Your task to perform on an android device: Is it going to rain tomorrow? Image 0: 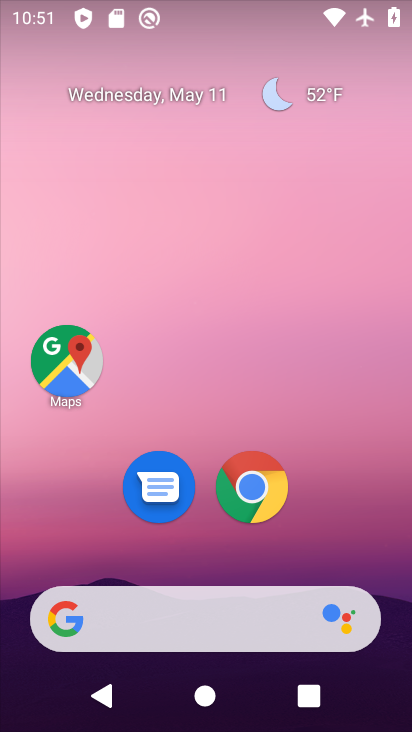
Step 0: drag from (351, 506) to (241, 13)
Your task to perform on an android device: Is it going to rain tomorrow? Image 1: 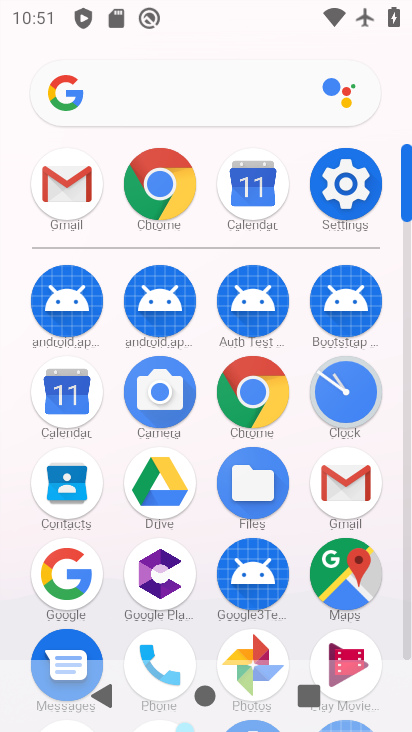
Step 1: drag from (9, 533) to (9, 213)
Your task to perform on an android device: Is it going to rain tomorrow? Image 2: 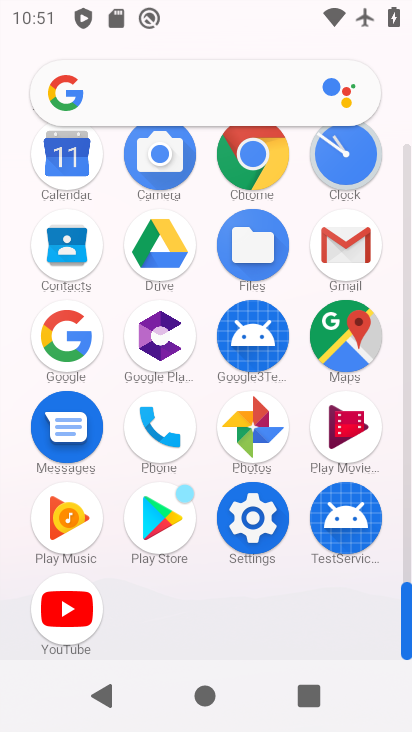
Step 2: drag from (7, 491) to (11, 343)
Your task to perform on an android device: Is it going to rain tomorrow? Image 3: 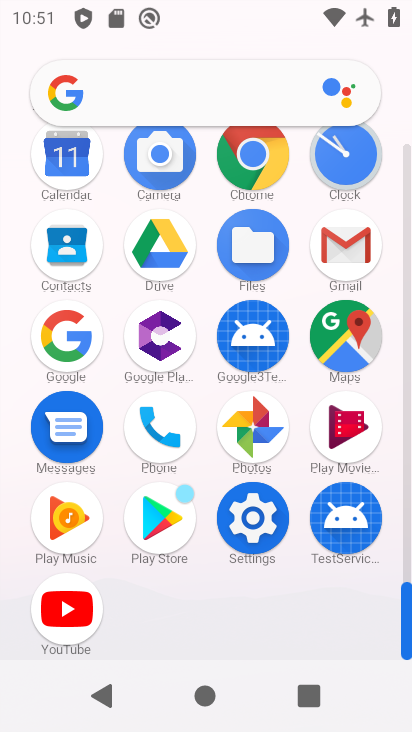
Step 3: click (244, 139)
Your task to perform on an android device: Is it going to rain tomorrow? Image 4: 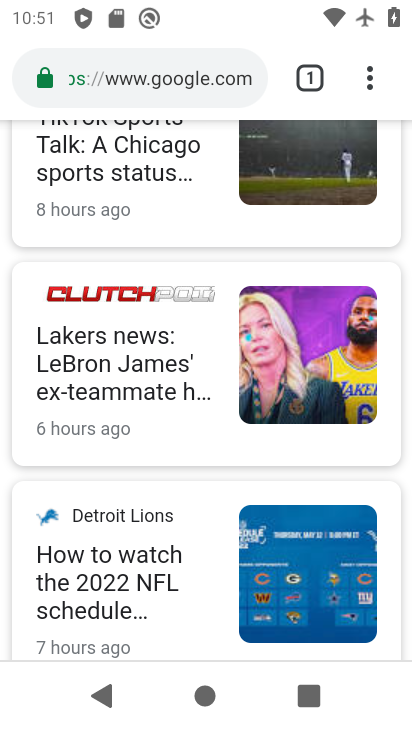
Step 4: click (106, 82)
Your task to perform on an android device: Is it going to rain tomorrow? Image 5: 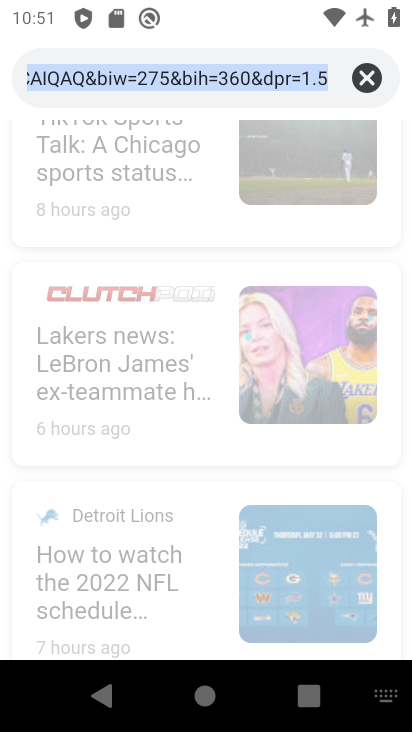
Step 5: click (352, 75)
Your task to perform on an android device: Is it going to rain tomorrow? Image 6: 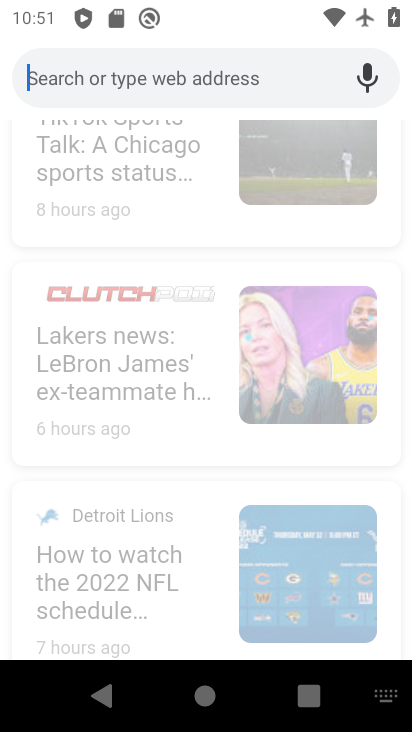
Step 6: type "Is it going to rain tomorrow?"
Your task to perform on an android device: Is it going to rain tomorrow? Image 7: 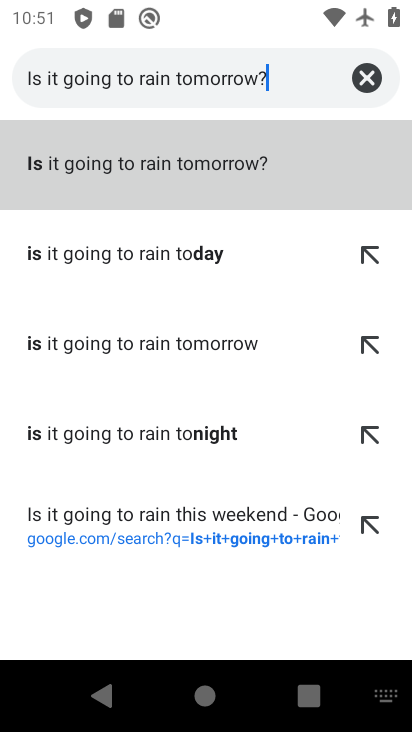
Step 7: type ""
Your task to perform on an android device: Is it going to rain tomorrow? Image 8: 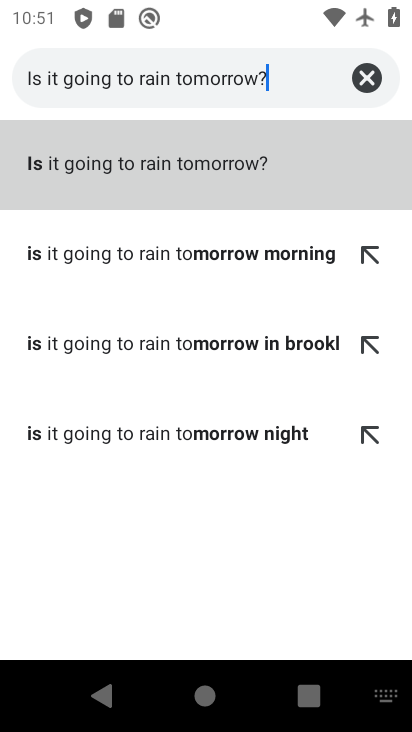
Step 8: click (145, 163)
Your task to perform on an android device: Is it going to rain tomorrow? Image 9: 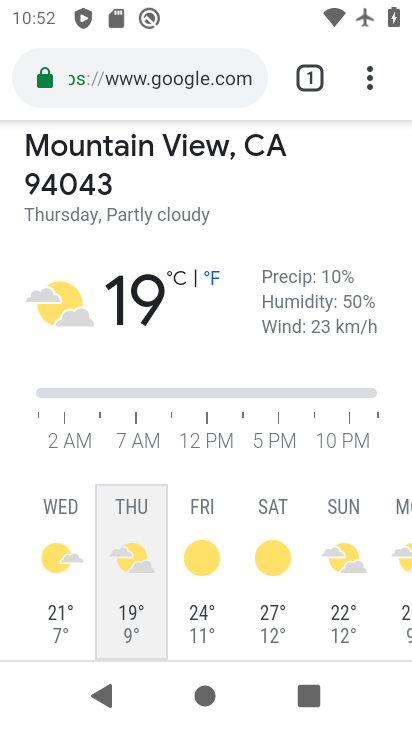
Step 9: task complete